Your task to perform on an android device: check battery use Image 0: 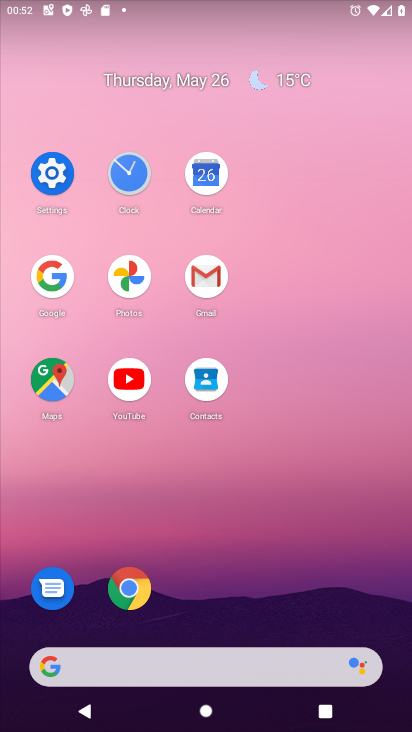
Step 0: click (56, 188)
Your task to perform on an android device: check battery use Image 1: 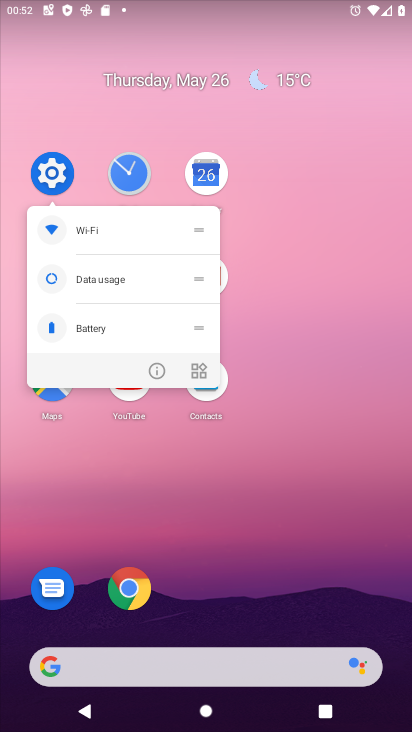
Step 1: click (44, 180)
Your task to perform on an android device: check battery use Image 2: 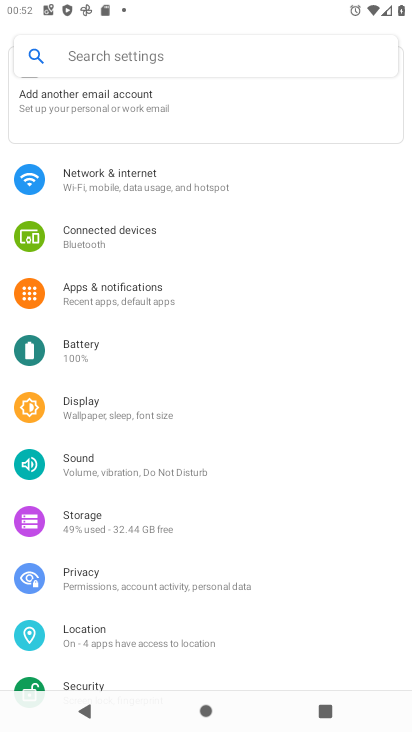
Step 2: click (114, 336)
Your task to perform on an android device: check battery use Image 3: 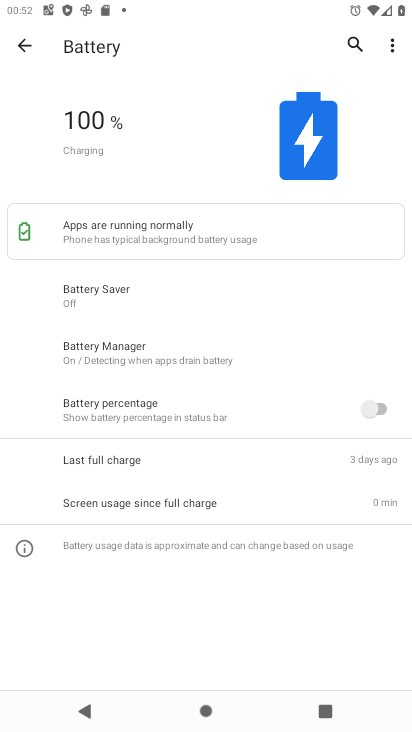
Step 3: click (398, 41)
Your task to perform on an android device: check battery use Image 4: 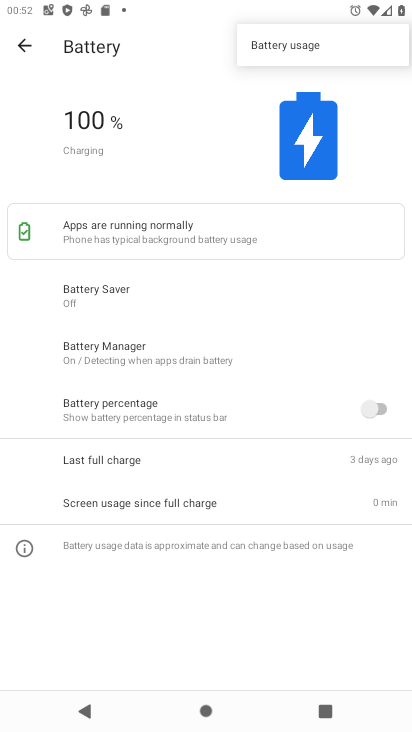
Step 4: click (339, 42)
Your task to perform on an android device: check battery use Image 5: 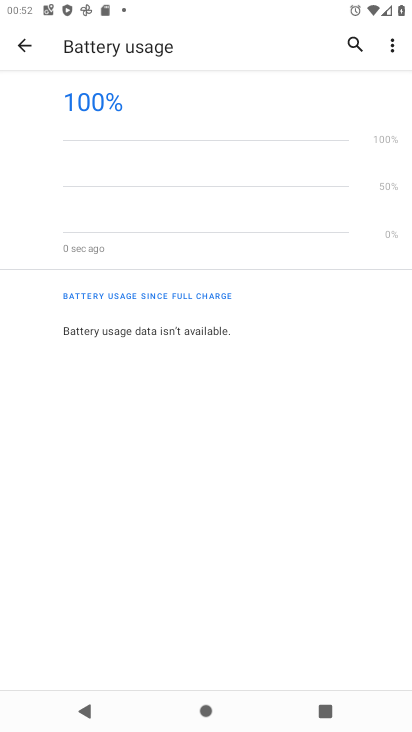
Step 5: task complete